Your task to perform on an android device: Find coffee shops on Maps Image 0: 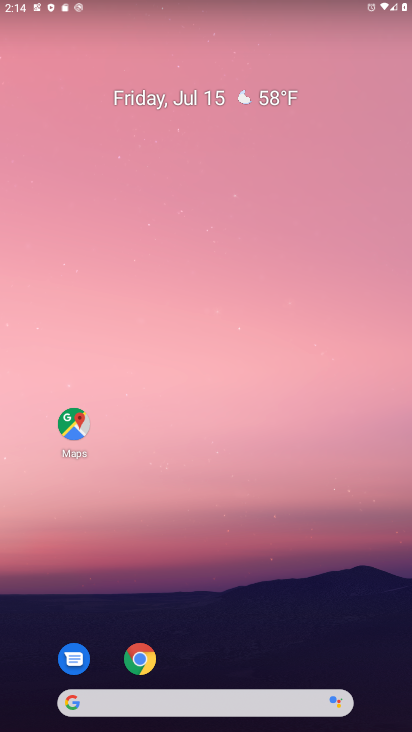
Step 0: drag from (214, 705) to (185, 266)
Your task to perform on an android device: Find coffee shops on Maps Image 1: 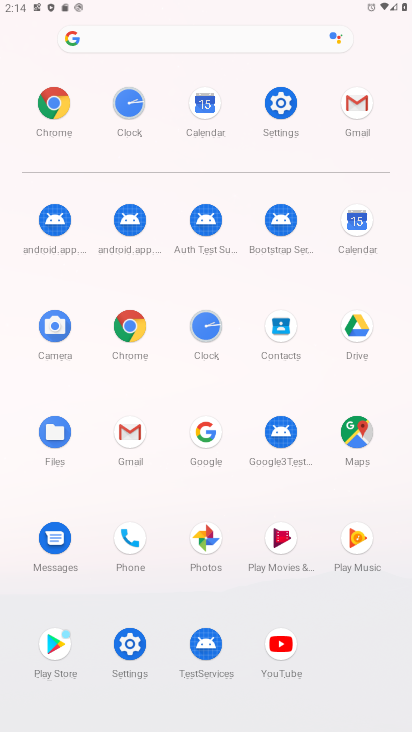
Step 1: click (357, 430)
Your task to perform on an android device: Find coffee shops on Maps Image 2: 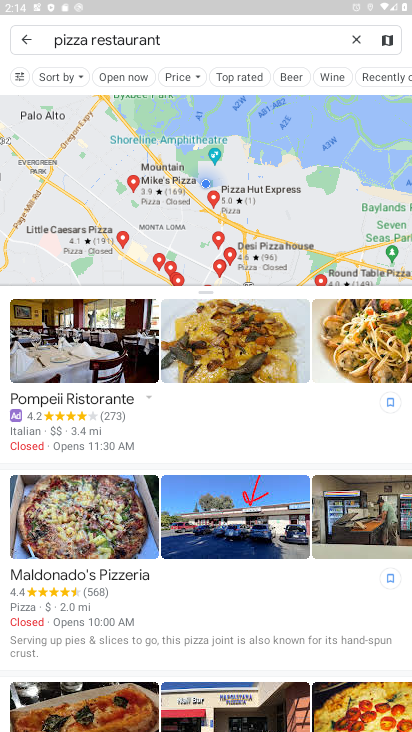
Step 2: click (353, 43)
Your task to perform on an android device: Find coffee shops on Maps Image 3: 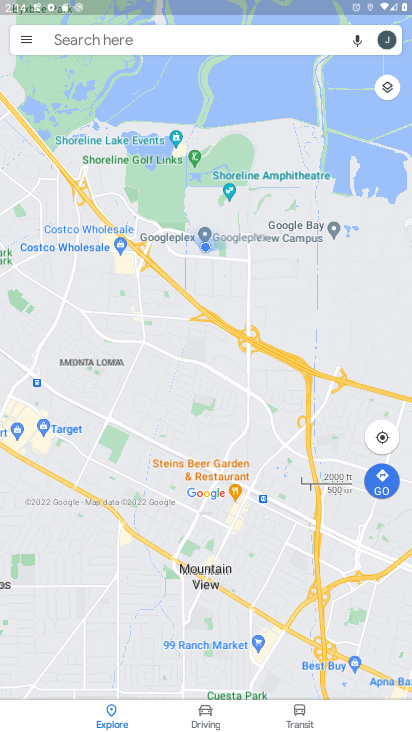
Step 3: click (176, 39)
Your task to perform on an android device: Find coffee shops on Maps Image 4: 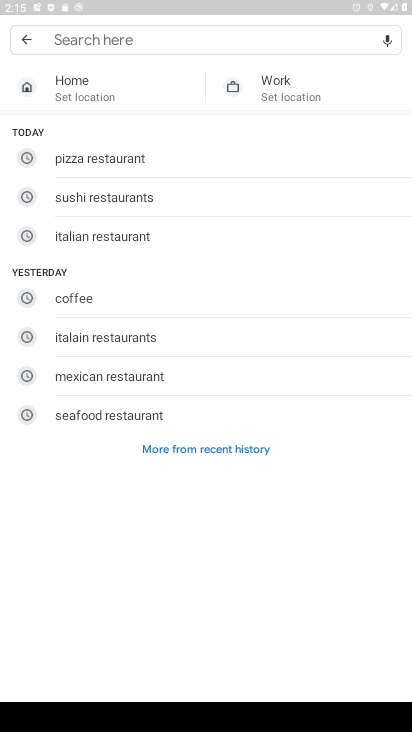
Step 4: type "coffee shops"
Your task to perform on an android device: Find coffee shops on Maps Image 5: 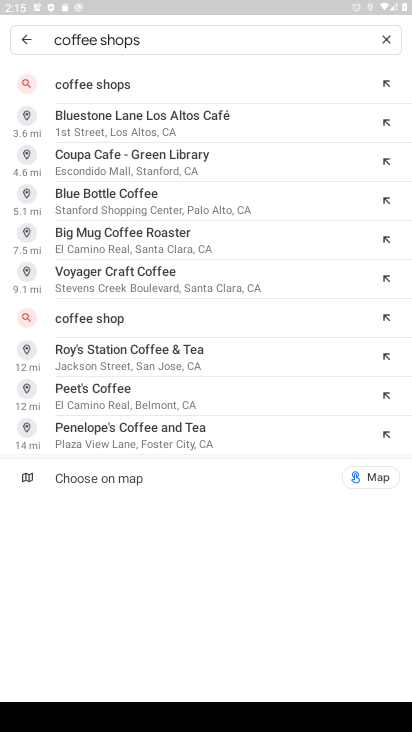
Step 5: click (90, 78)
Your task to perform on an android device: Find coffee shops on Maps Image 6: 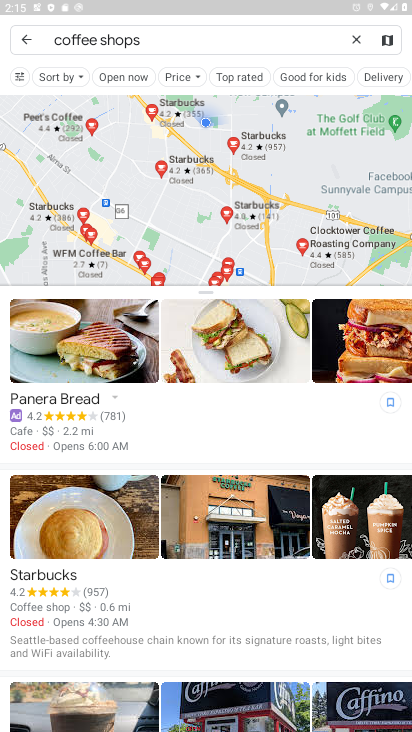
Step 6: task complete